Your task to perform on an android device: read, delete, or share a saved page in the chrome app Image 0: 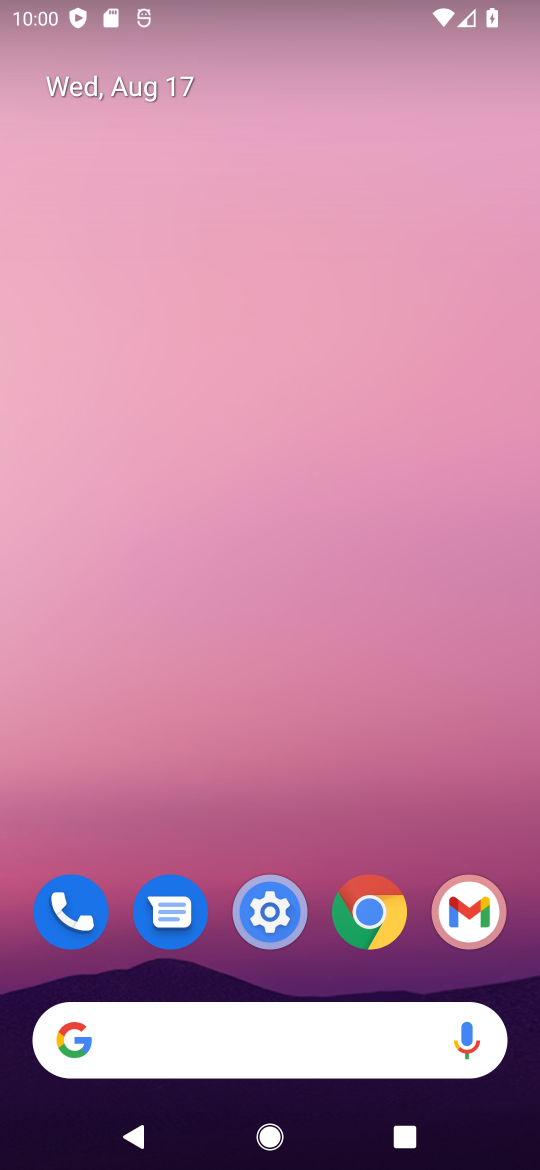
Step 0: click (345, 932)
Your task to perform on an android device: read, delete, or share a saved page in the chrome app Image 1: 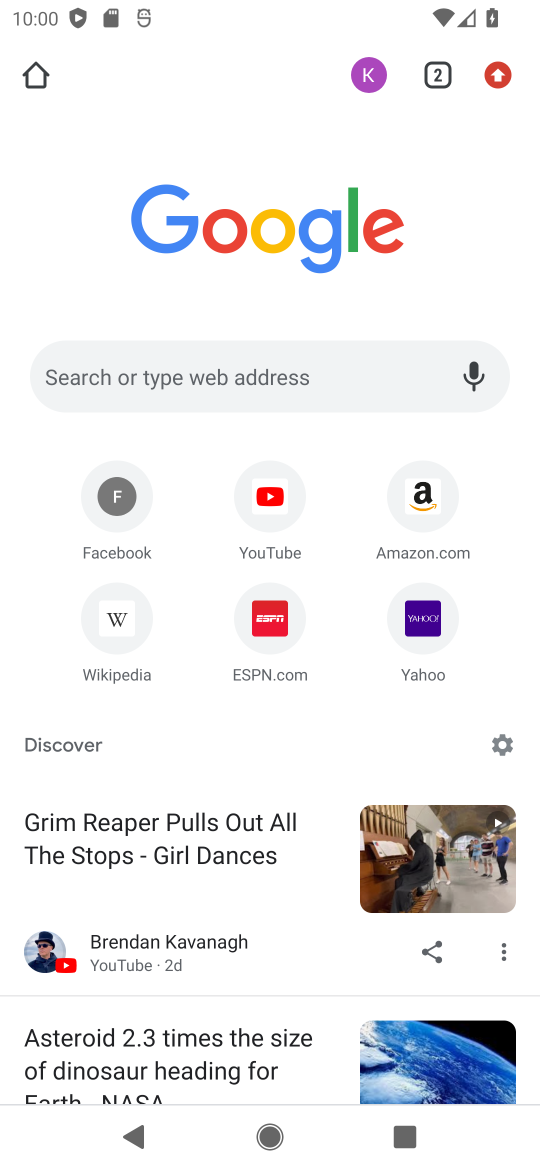
Step 1: click (496, 71)
Your task to perform on an android device: read, delete, or share a saved page in the chrome app Image 2: 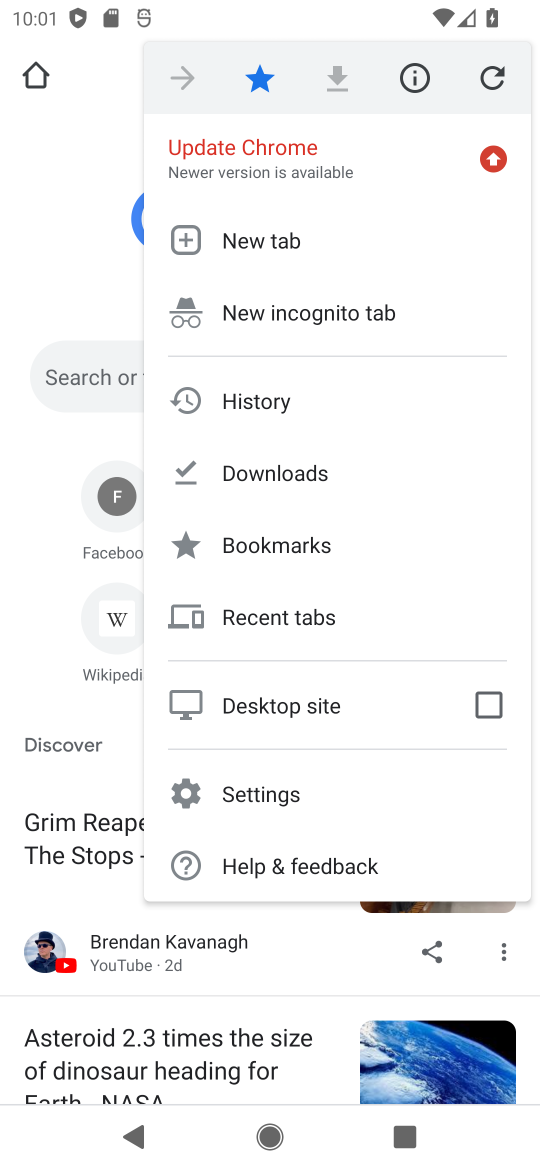
Step 2: click (266, 477)
Your task to perform on an android device: read, delete, or share a saved page in the chrome app Image 3: 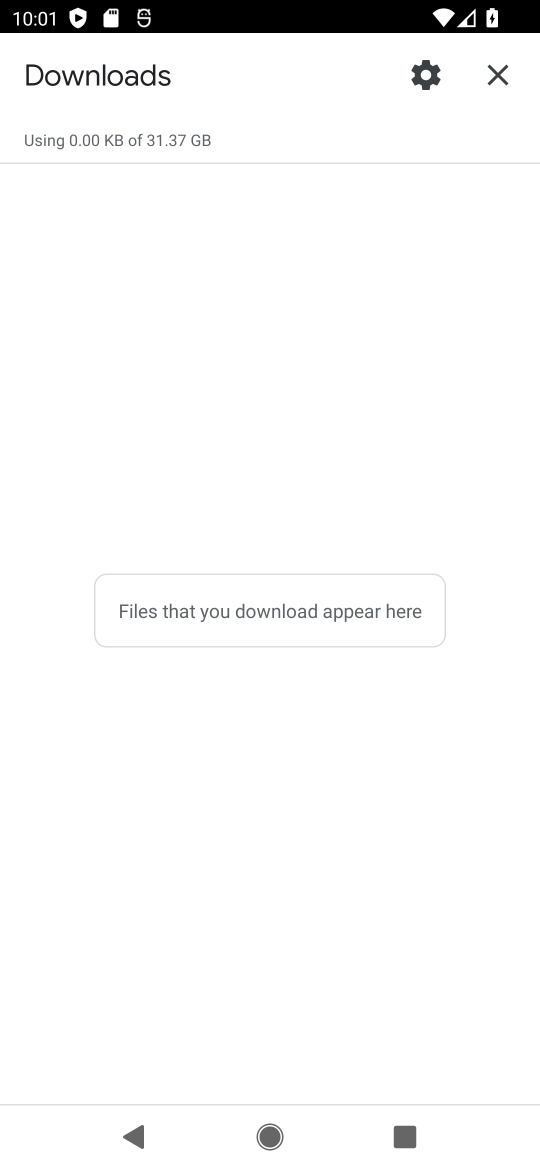
Step 3: task complete